Your task to perform on an android device: turn on notifications settings in the gmail app Image 0: 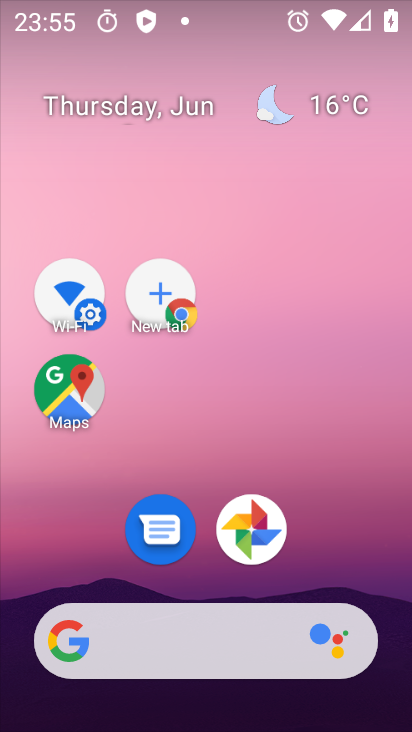
Step 0: drag from (292, 725) to (225, 249)
Your task to perform on an android device: turn on notifications settings in the gmail app Image 1: 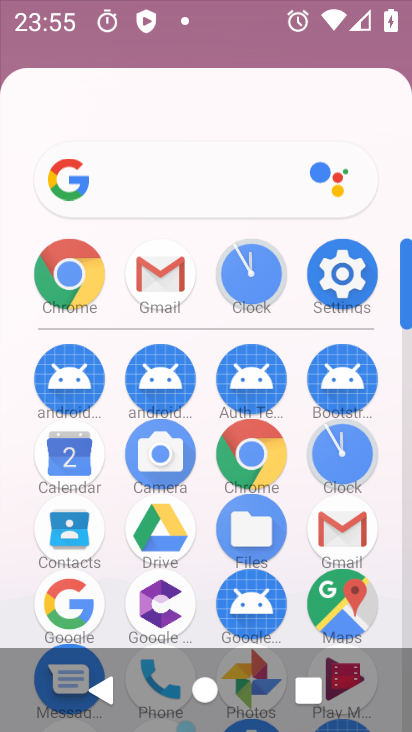
Step 1: click (333, 528)
Your task to perform on an android device: turn on notifications settings in the gmail app Image 2: 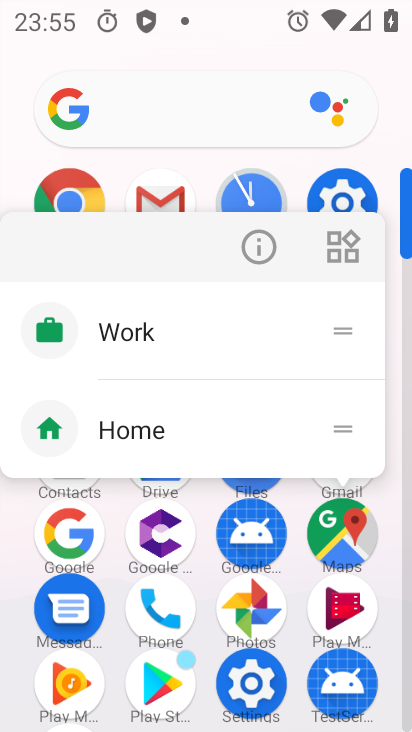
Step 2: press back button
Your task to perform on an android device: turn on notifications settings in the gmail app Image 3: 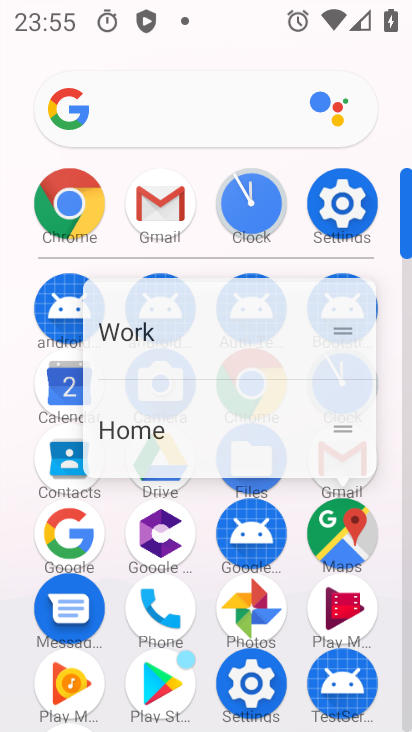
Step 3: press back button
Your task to perform on an android device: turn on notifications settings in the gmail app Image 4: 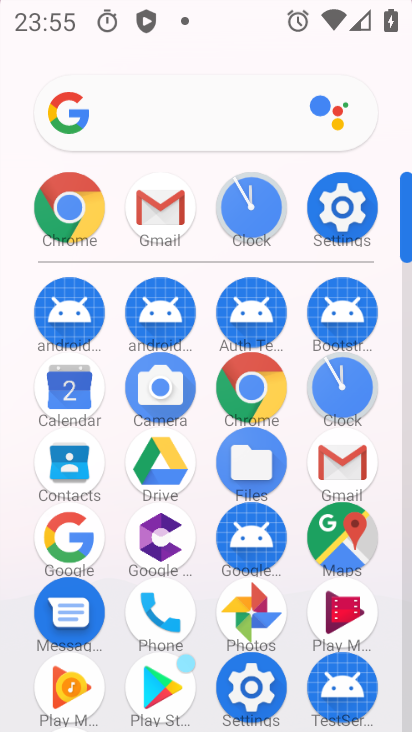
Step 4: press back button
Your task to perform on an android device: turn on notifications settings in the gmail app Image 5: 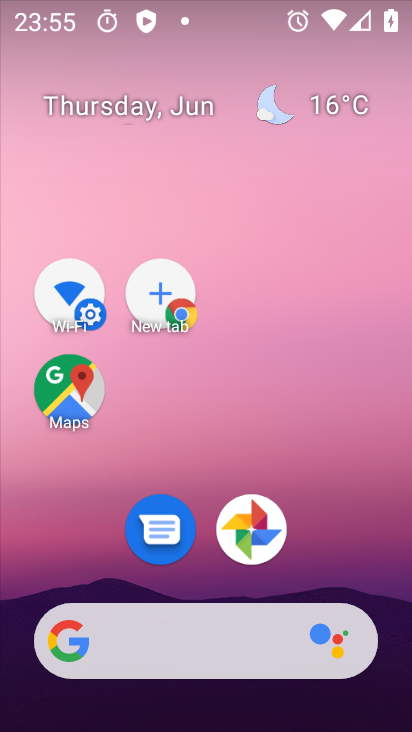
Step 5: drag from (232, 720) to (160, 87)
Your task to perform on an android device: turn on notifications settings in the gmail app Image 6: 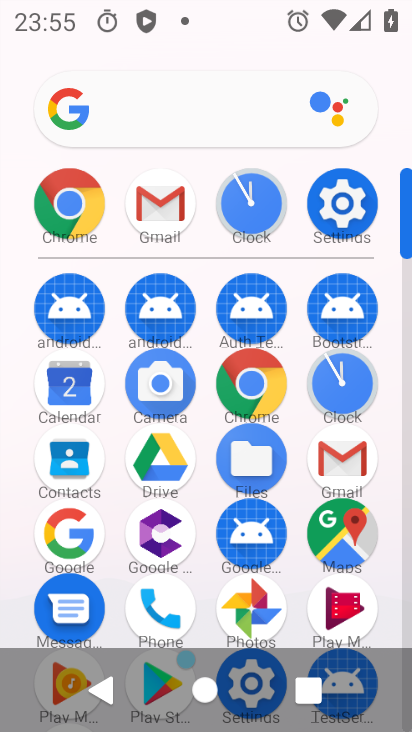
Step 6: drag from (232, 653) to (168, 100)
Your task to perform on an android device: turn on notifications settings in the gmail app Image 7: 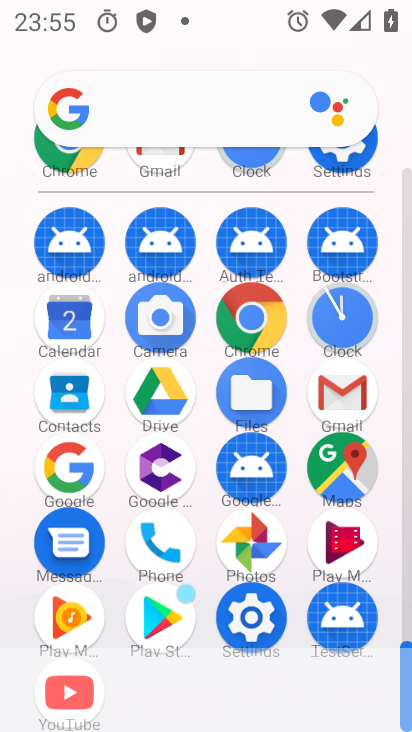
Step 7: click (338, 383)
Your task to perform on an android device: turn on notifications settings in the gmail app Image 8: 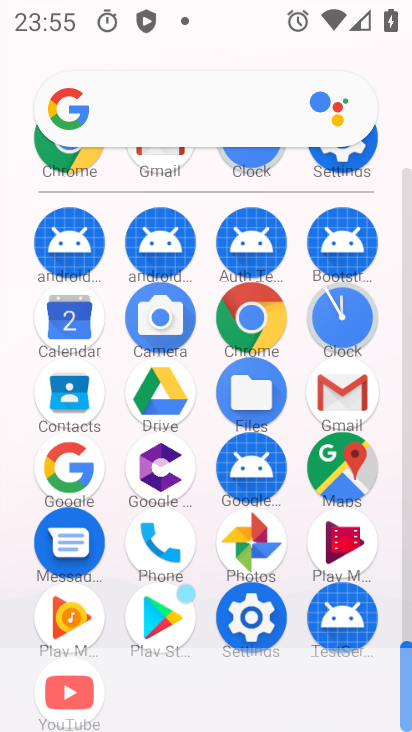
Step 8: click (338, 383)
Your task to perform on an android device: turn on notifications settings in the gmail app Image 9: 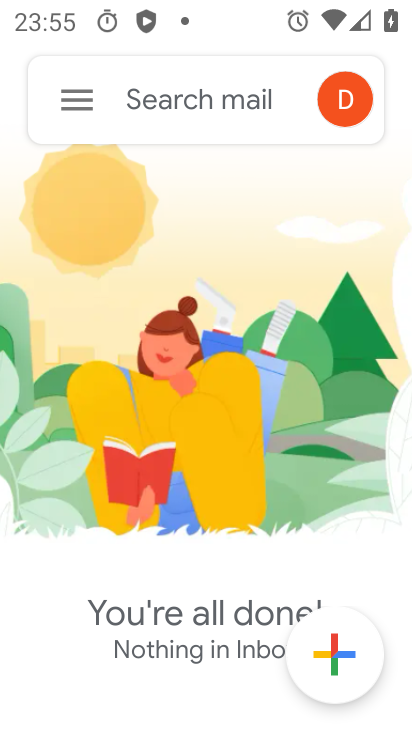
Step 9: click (80, 97)
Your task to perform on an android device: turn on notifications settings in the gmail app Image 10: 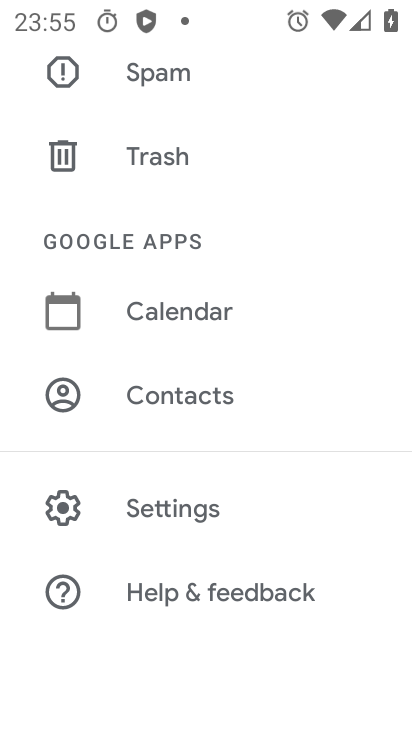
Step 10: click (166, 494)
Your task to perform on an android device: turn on notifications settings in the gmail app Image 11: 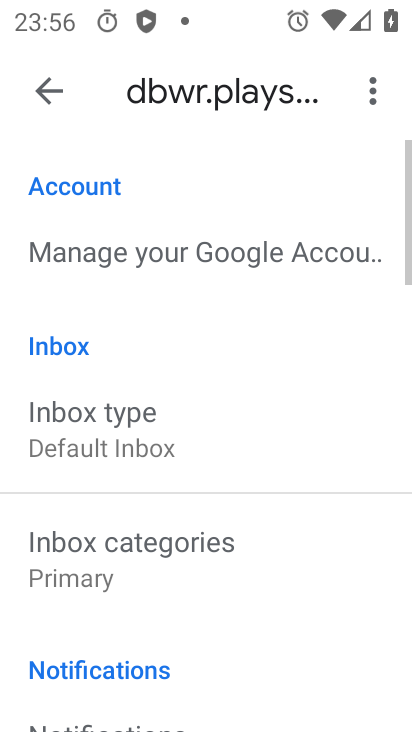
Step 11: drag from (79, 585) to (107, 273)
Your task to perform on an android device: turn on notifications settings in the gmail app Image 12: 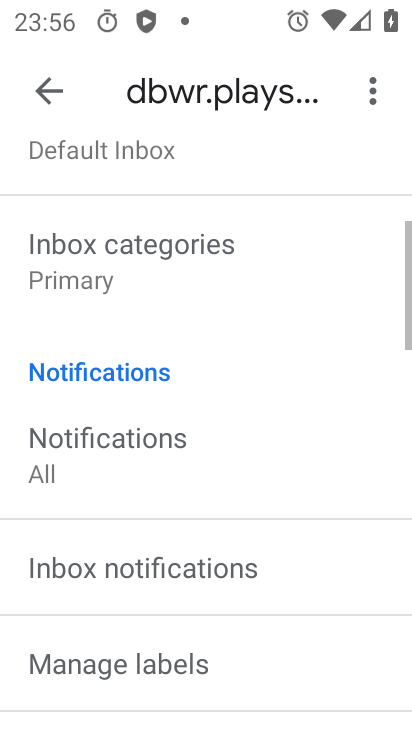
Step 12: drag from (109, 508) to (109, 199)
Your task to perform on an android device: turn on notifications settings in the gmail app Image 13: 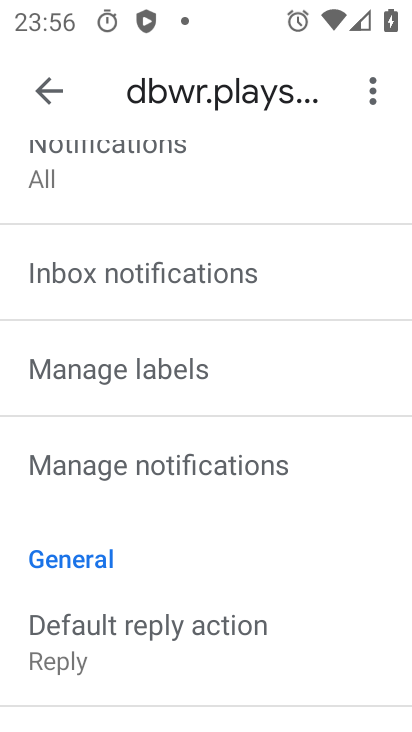
Step 13: drag from (127, 520) to (90, 195)
Your task to perform on an android device: turn on notifications settings in the gmail app Image 14: 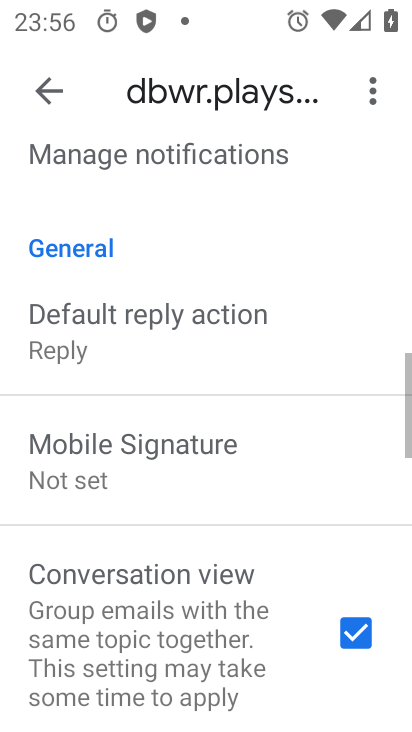
Step 14: drag from (133, 417) to (103, 279)
Your task to perform on an android device: turn on notifications settings in the gmail app Image 15: 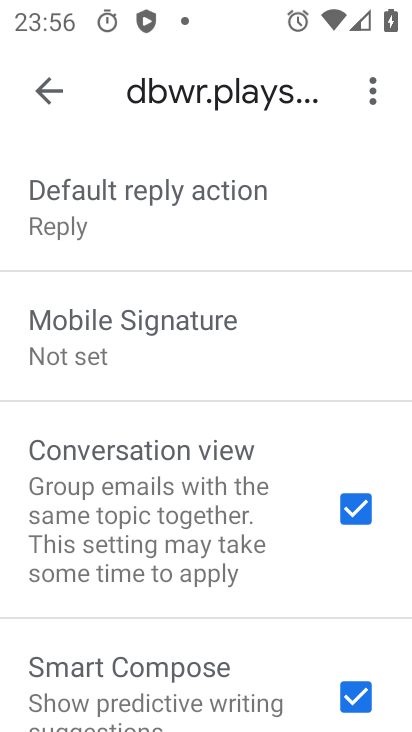
Step 15: drag from (91, 217) to (121, 549)
Your task to perform on an android device: turn on notifications settings in the gmail app Image 16: 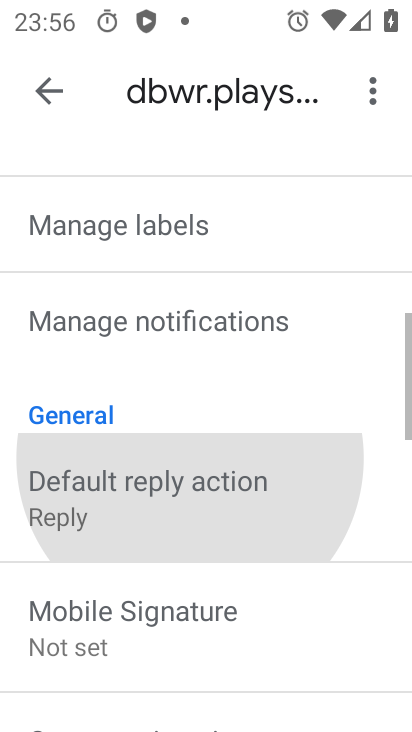
Step 16: click (146, 559)
Your task to perform on an android device: turn on notifications settings in the gmail app Image 17: 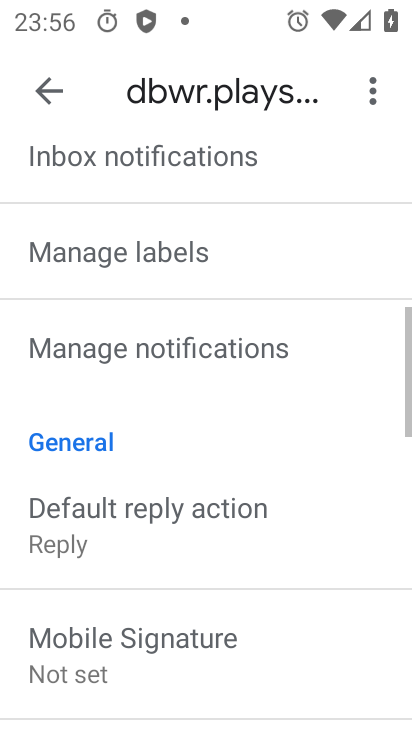
Step 17: drag from (112, 307) to (142, 505)
Your task to perform on an android device: turn on notifications settings in the gmail app Image 18: 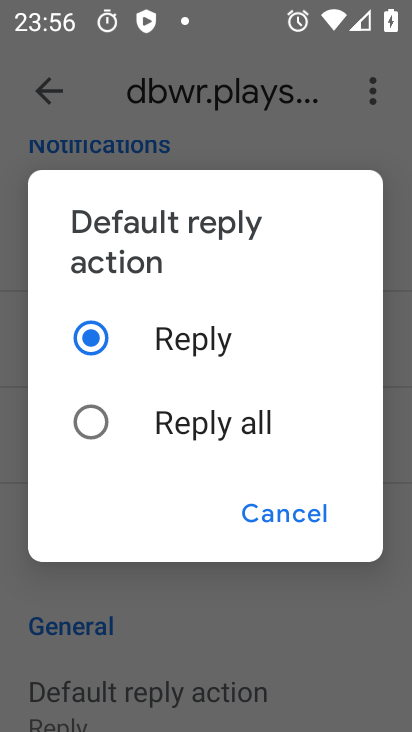
Step 18: click (293, 501)
Your task to perform on an android device: turn on notifications settings in the gmail app Image 19: 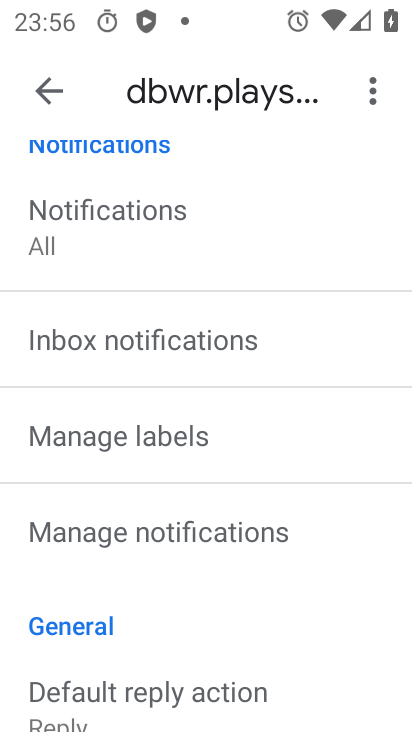
Step 19: click (86, 213)
Your task to perform on an android device: turn on notifications settings in the gmail app Image 20: 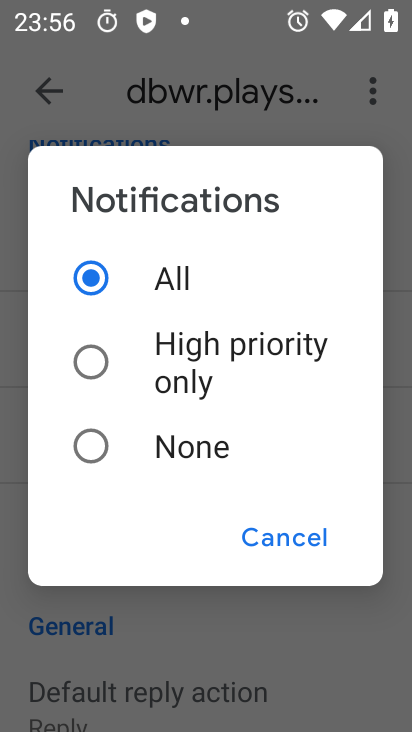
Step 20: task complete